Your task to perform on an android device: turn off improve location accuracy Image 0: 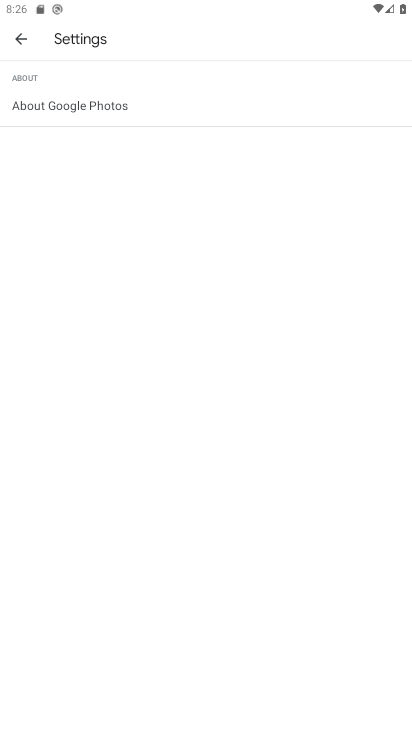
Step 0: press home button
Your task to perform on an android device: turn off improve location accuracy Image 1: 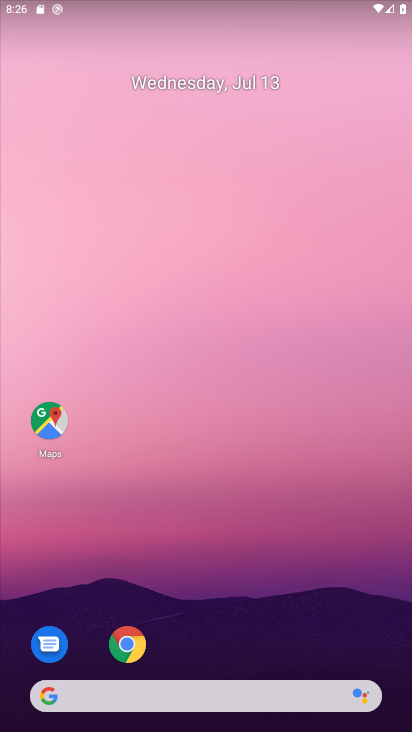
Step 1: drag from (284, 610) to (377, 135)
Your task to perform on an android device: turn off improve location accuracy Image 2: 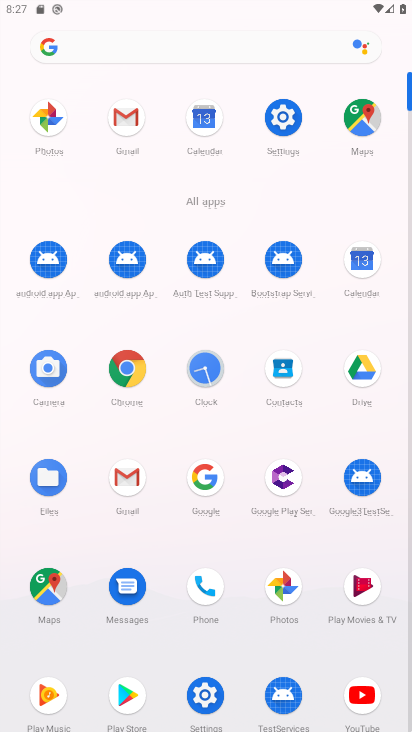
Step 2: click (291, 128)
Your task to perform on an android device: turn off improve location accuracy Image 3: 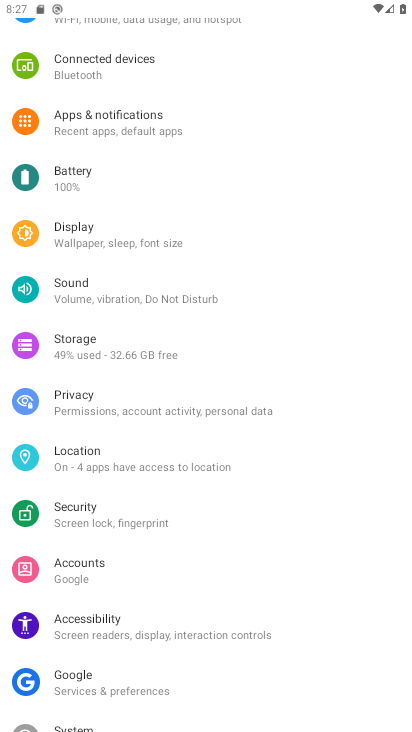
Step 3: click (131, 463)
Your task to perform on an android device: turn off improve location accuracy Image 4: 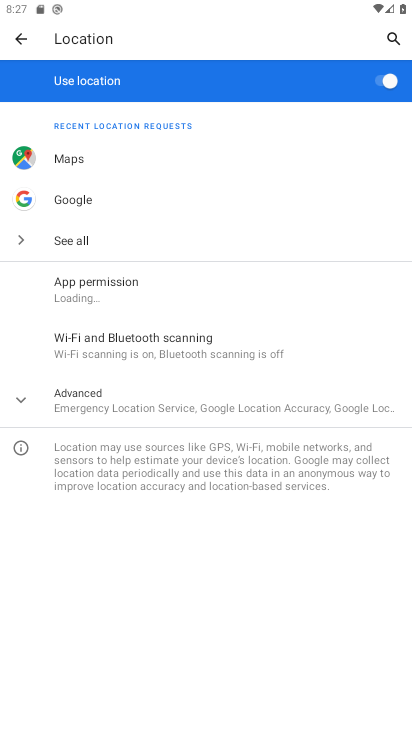
Step 4: click (158, 404)
Your task to perform on an android device: turn off improve location accuracy Image 5: 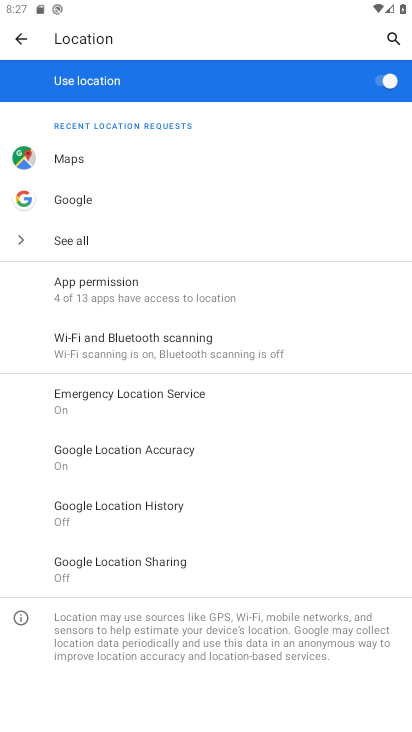
Step 5: click (155, 439)
Your task to perform on an android device: turn off improve location accuracy Image 6: 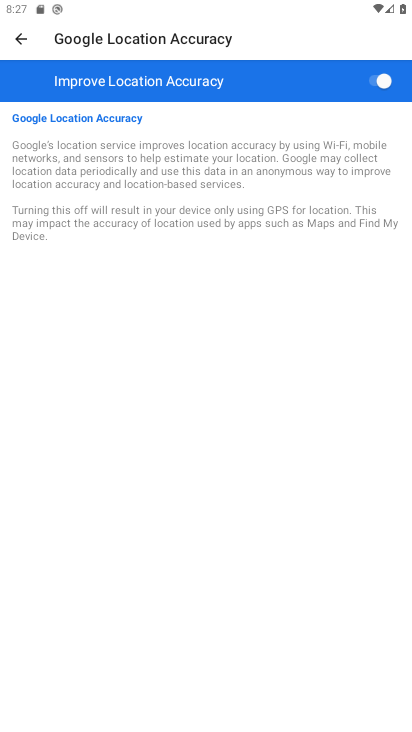
Step 6: click (384, 90)
Your task to perform on an android device: turn off improve location accuracy Image 7: 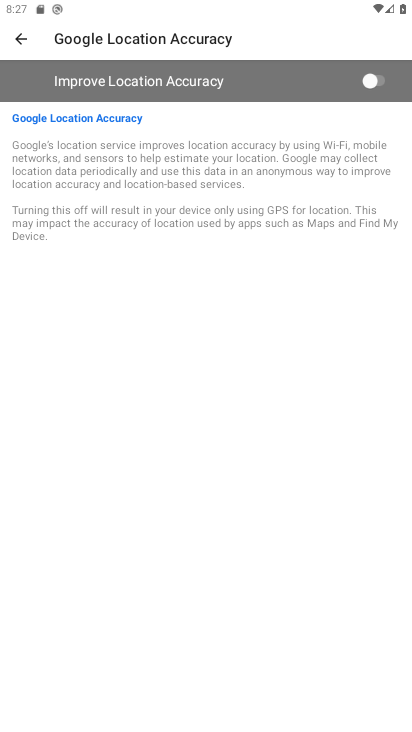
Step 7: task complete